Your task to perform on an android device: create a new album in the google photos Image 0: 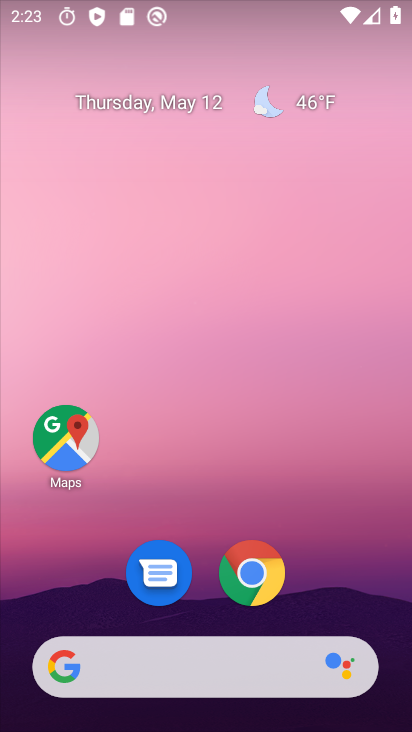
Step 0: drag from (199, 616) to (189, 23)
Your task to perform on an android device: create a new album in the google photos Image 1: 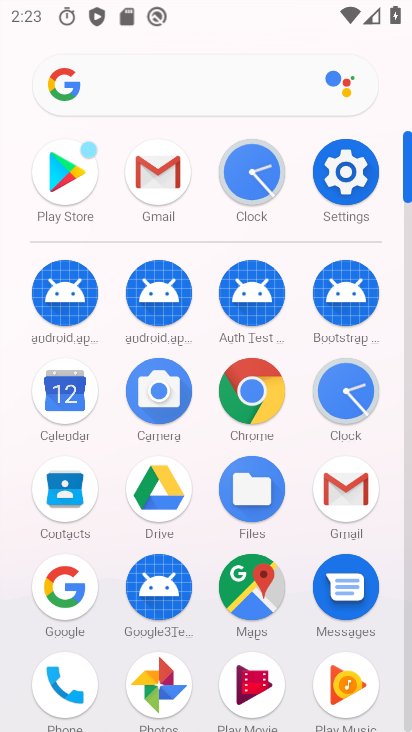
Step 1: click (162, 683)
Your task to perform on an android device: create a new album in the google photos Image 2: 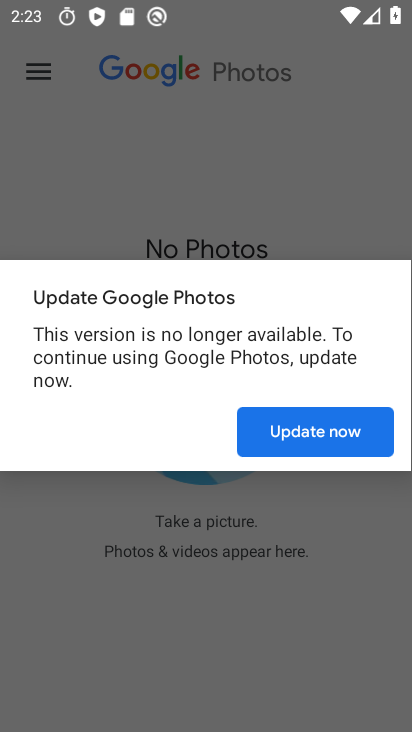
Step 2: click (307, 441)
Your task to perform on an android device: create a new album in the google photos Image 3: 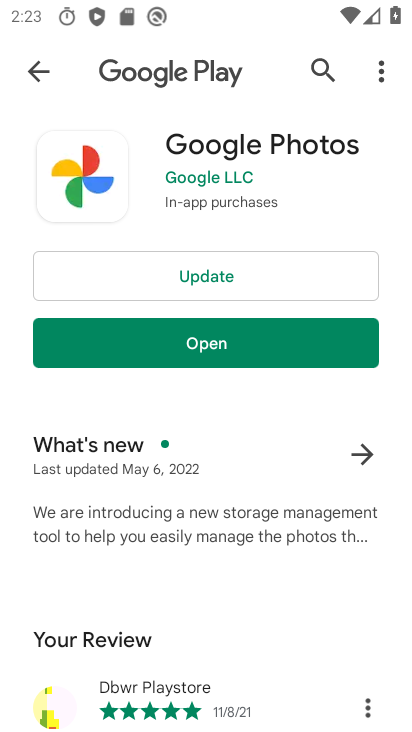
Step 3: click (247, 346)
Your task to perform on an android device: create a new album in the google photos Image 4: 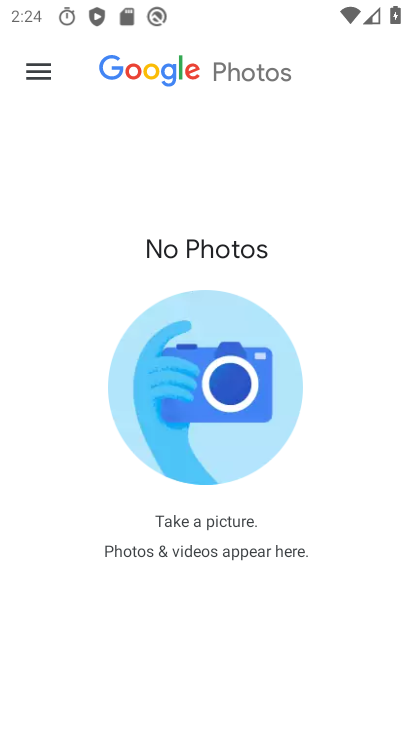
Step 4: click (44, 69)
Your task to perform on an android device: create a new album in the google photos Image 5: 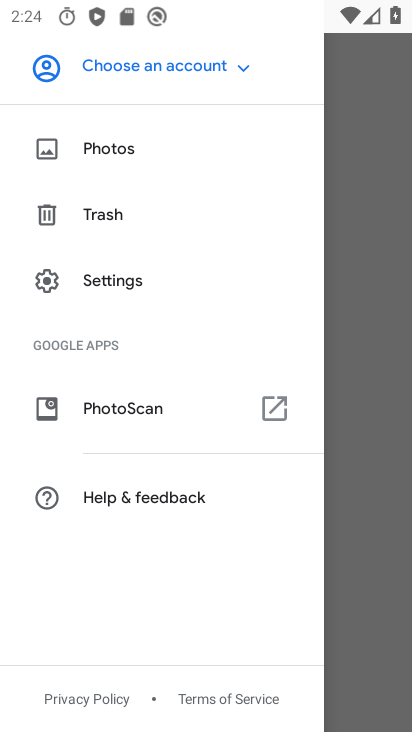
Step 5: click (141, 90)
Your task to perform on an android device: create a new album in the google photos Image 6: 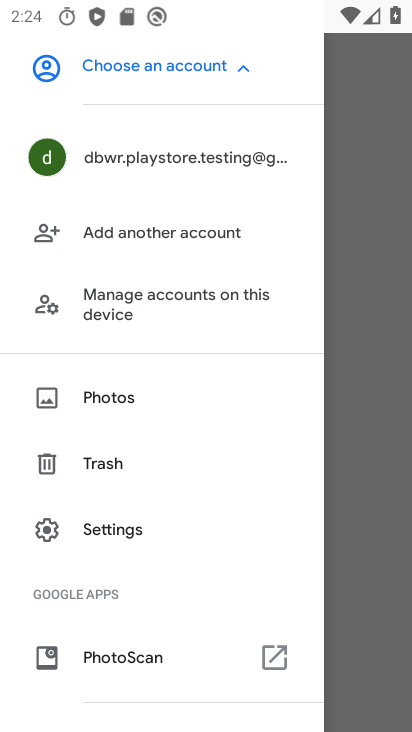
Step 6: click (119, 174)
Your task to perform on an android device: create a new album in the google photos Image 7: 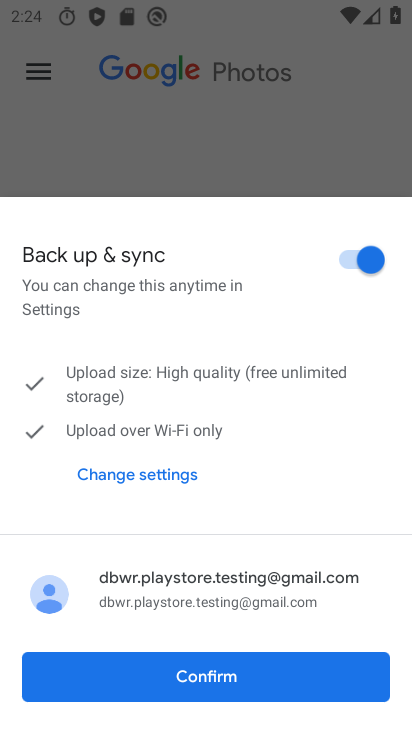
Step 7: click (242, 657)
Your task to perform on an android device: create a new album in the google photos Image 8: 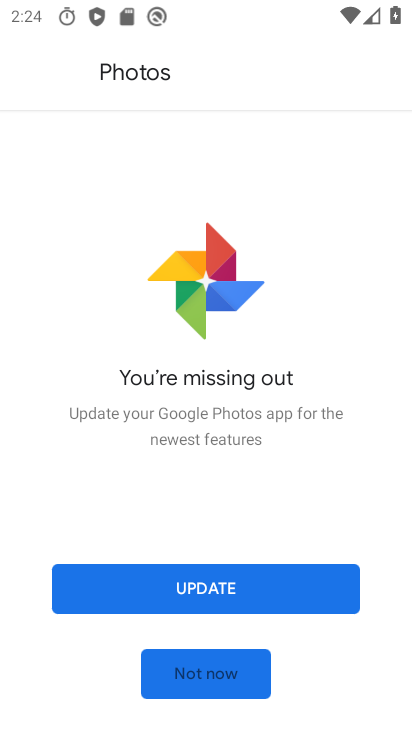
Step 8: click (229, 667)
Your task to perform on an android device: create a new album in the google photos Image 9: 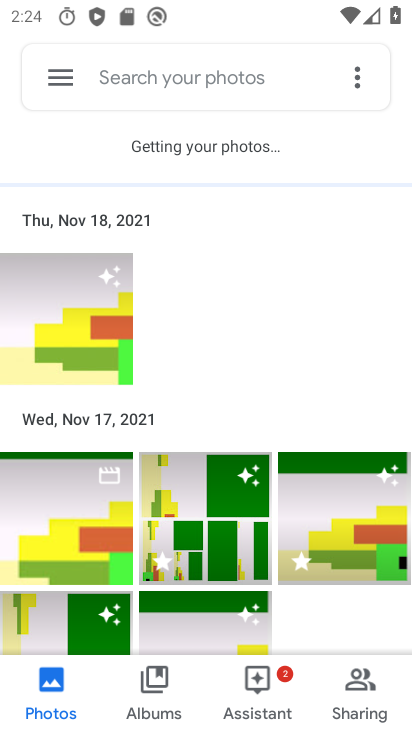
Step 9: click (77, 483)
Your task to perform on an android device: create a new album in the google photos Image 10: 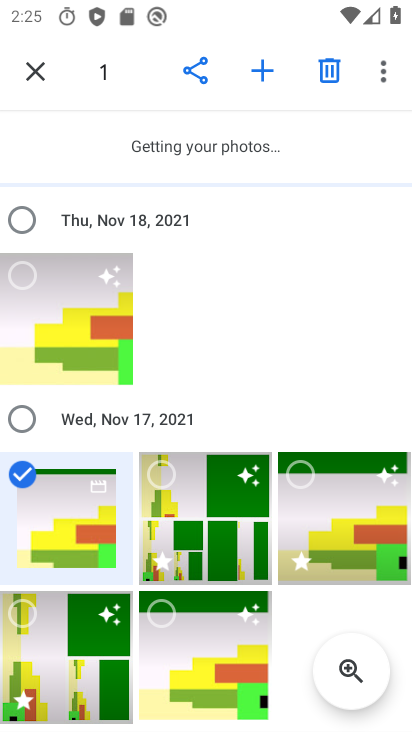
Step 10: click (160, 474)
Your task to perform on an android device: create a new album in the google photos Image 11: 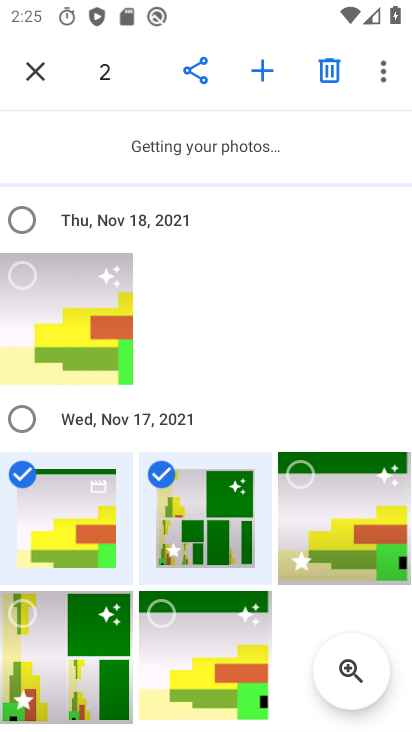
Step 11: click (255, 58)
Your task to perform on an android device: create a new album in the google photos Image 12: 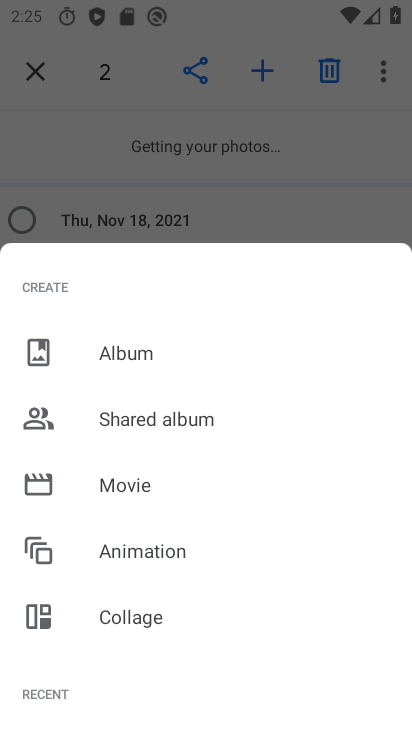
Step 12: click (168, 366)
Your task to perform on an android device: create a new album in the google photos Image 13: 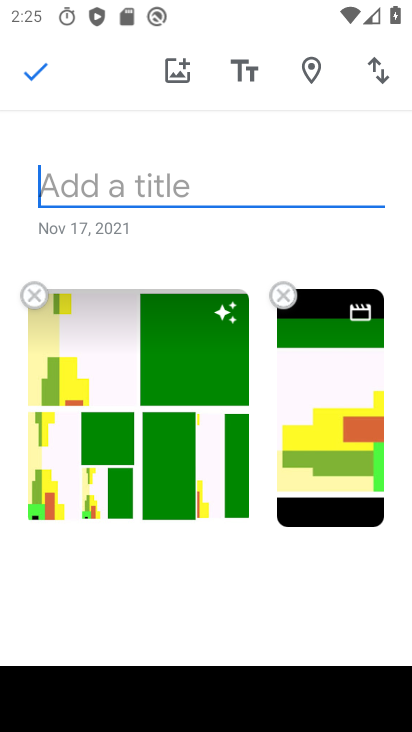
Step 13: type "cb"
Your task to perform on an android device: create a new album in the google photos Image 14: 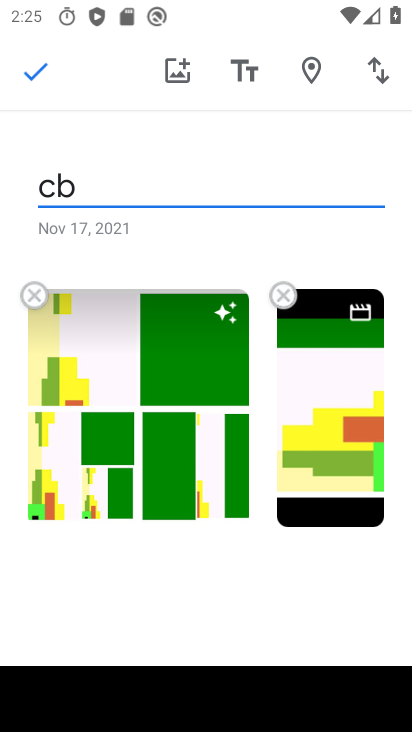
Step 14: click (47, 74)
Your task to perform on an android device: create a new album in the google photos Image 15: 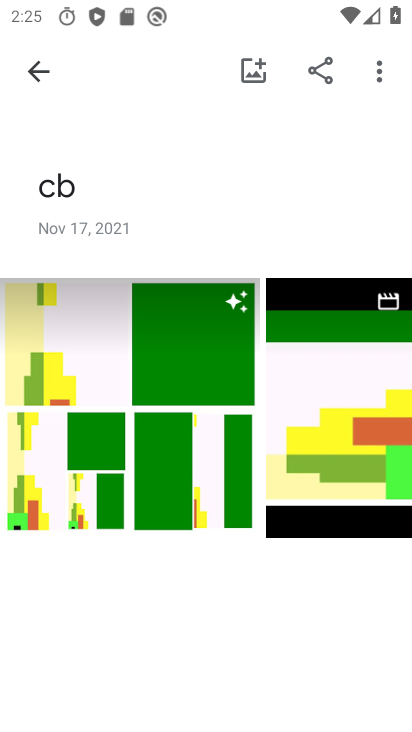
Step 15: task complete